Your task to perform on an android device: Open eBay Image 0: 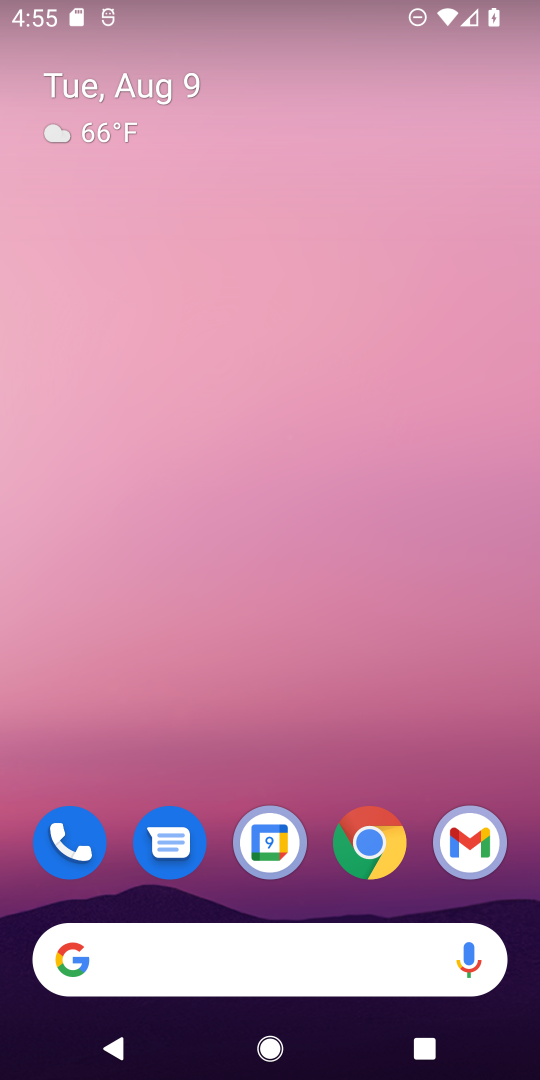
Step 0: drag from (265, 935) to (335, 38)
Your task to perform on an android device: Open eBay Image 1: 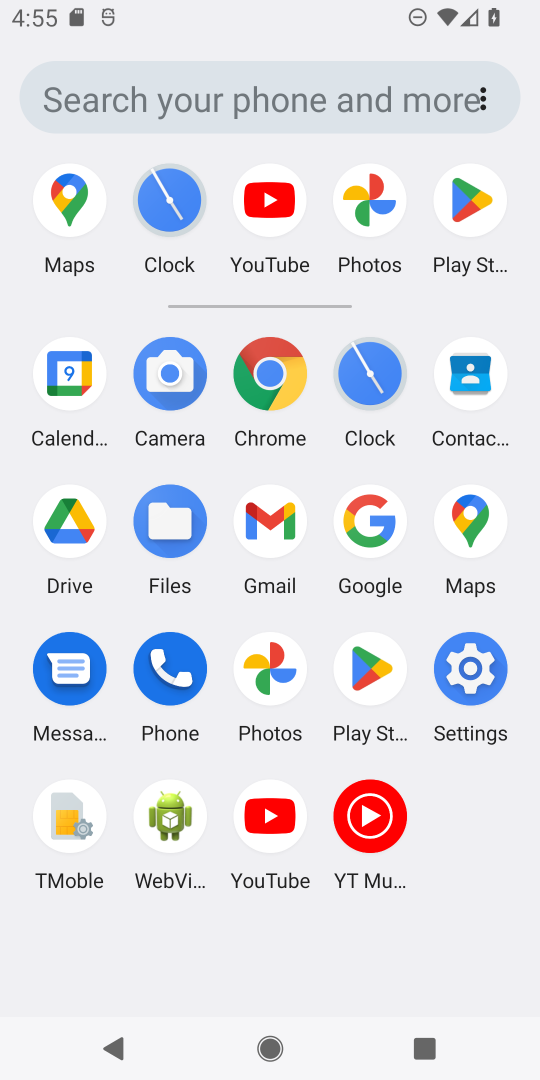
Step 1: click (275, 377)
Your task to perform on an android device: Open eBay Image 2: 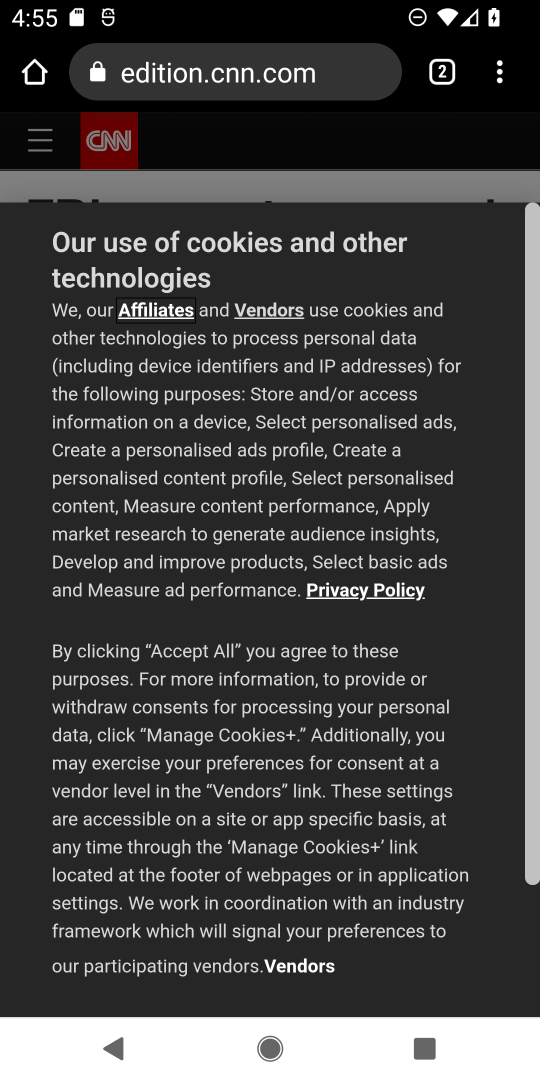
Step 2: click (286, 76)
Your task to perform on an android device: Open eBay Image 3: 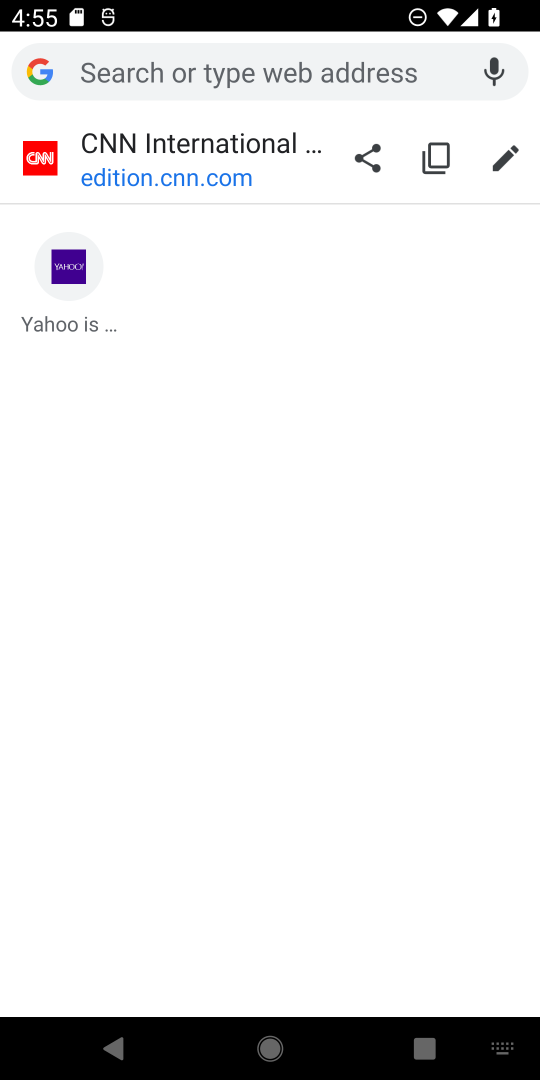
Step 3: type "ebay"
Your task to perform on an android device: Open eBay Image 4: 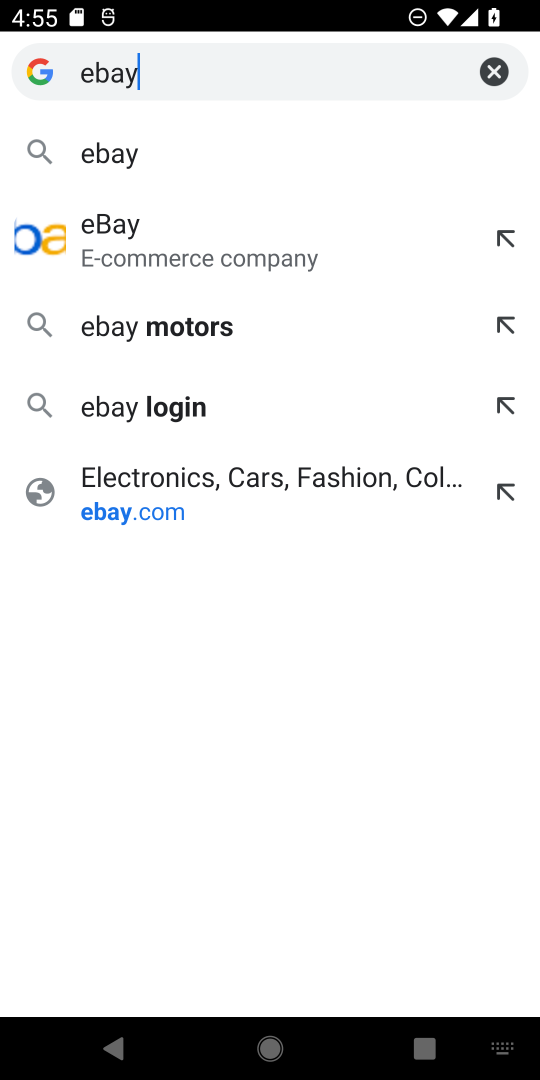
Step 4: click (87, 271)
Your task to perform on an android device: Open eBay Image 5: 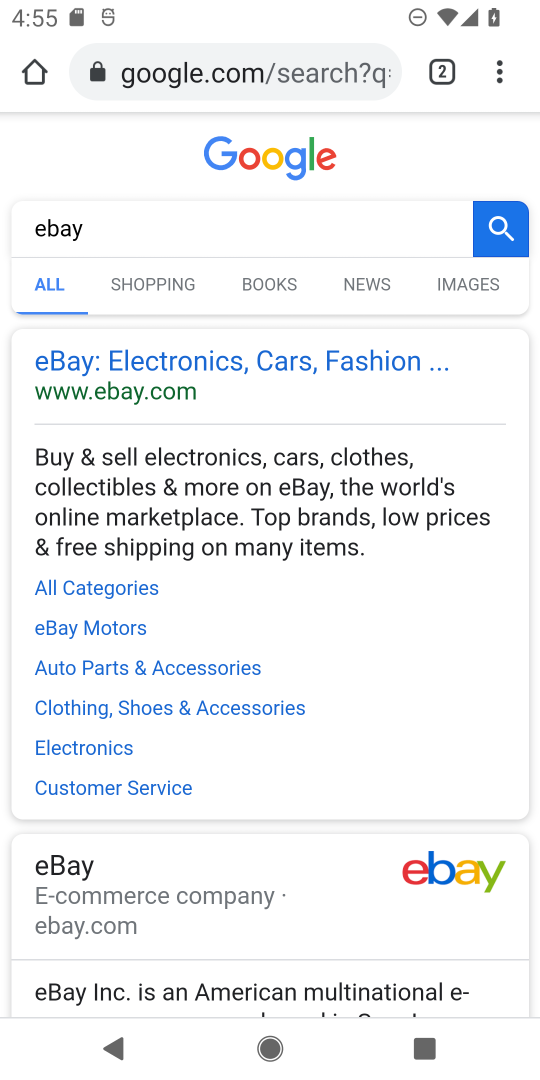
Step 5: task complete